Your task to perform on an android device: Open Google Maps and go to "Timeline" Image 0: 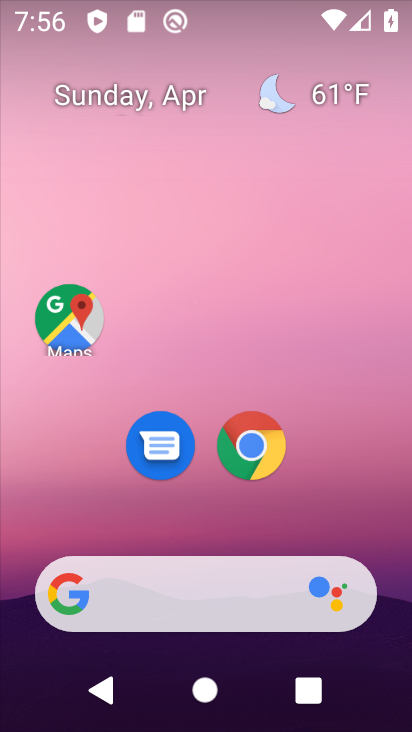
Step 0: drag from (199, 517) to (198, 311)
Your task to perform on an android device: Open Google Maps and go to "Timeline" Image 1: 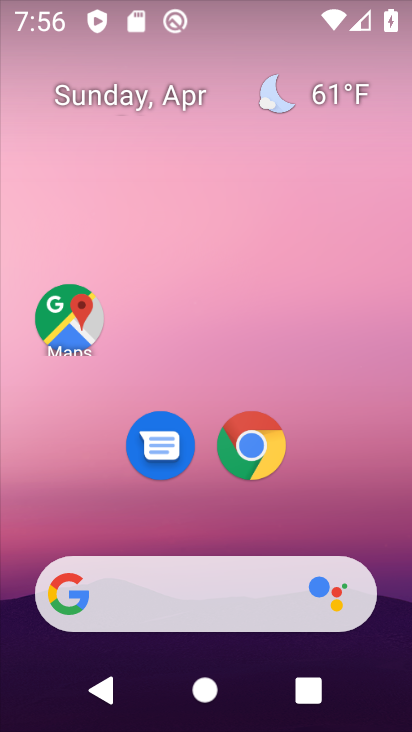
Step 1: click (74, 308)
Your task to perform on an android device: Open Google Maps and go to "Timeline" Image 2: 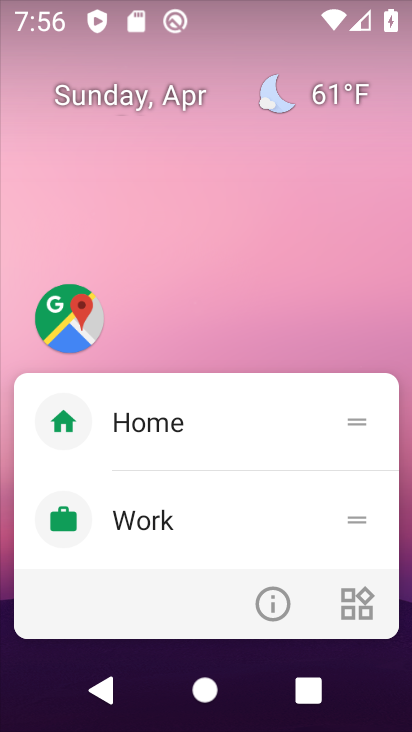
Step 2: click (57, 308)
Your task to perform on an android device: Open Google Maps and go to "Timeline" Image 3: 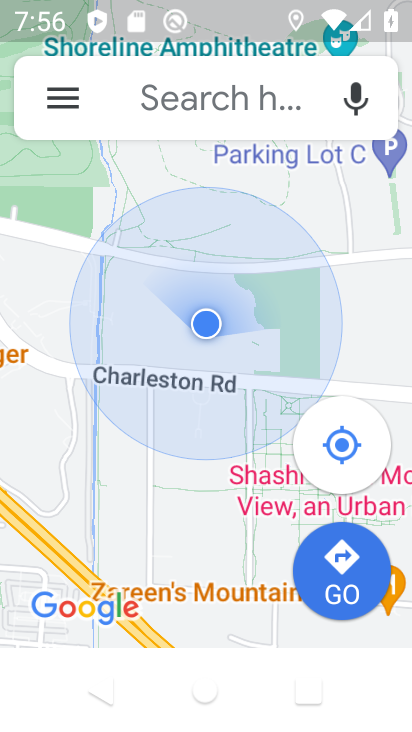
Step 3: click (53, 92)
Your task to perform on an android device: Open Google Maps and go to "Timeline" Image 4: 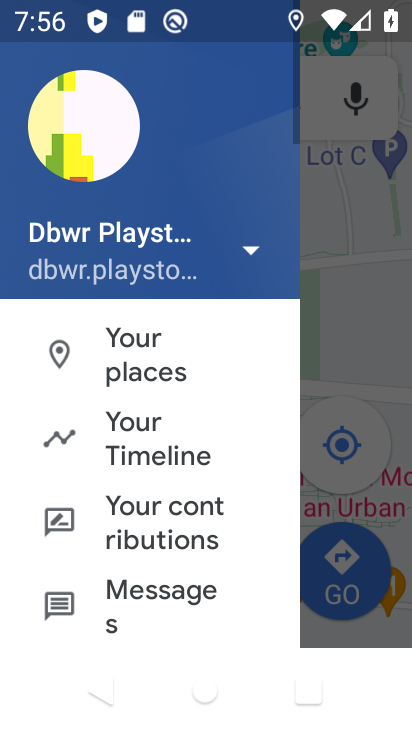
Step 4: click (165, 431)
Your task to perform on an android device: Open Google Maps and go to "Timeline" Image 5: 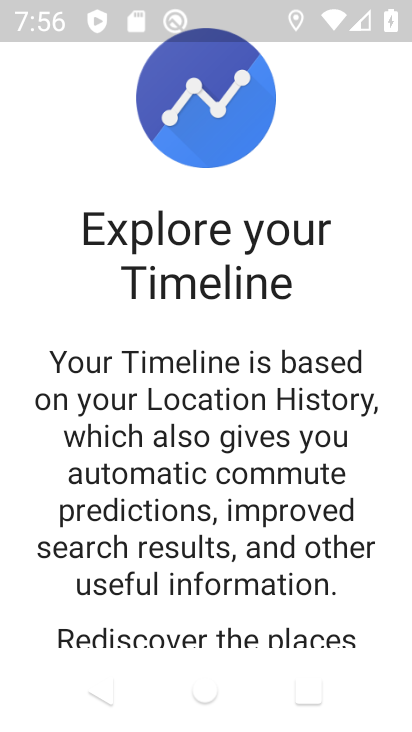
Step 5: drag from (276, 565) to (271, 242)
Your task to perform on an android device: Open Google Maps and go to "Timeline" Image 6: 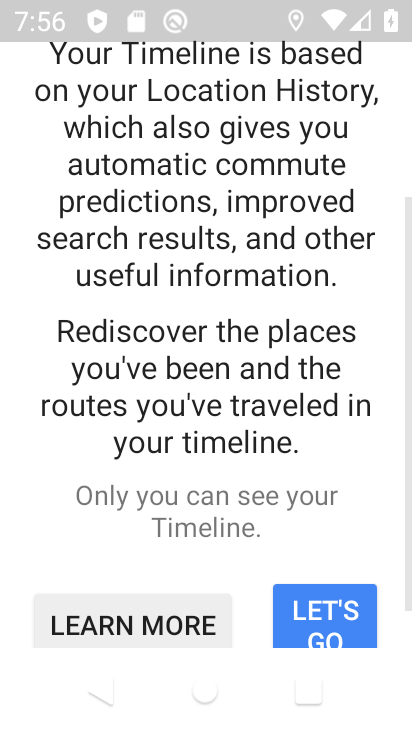
Step 6: click (290, 614)
Your task to perform on an android device: Open Google Maps and go to "Timeline" Image 7: 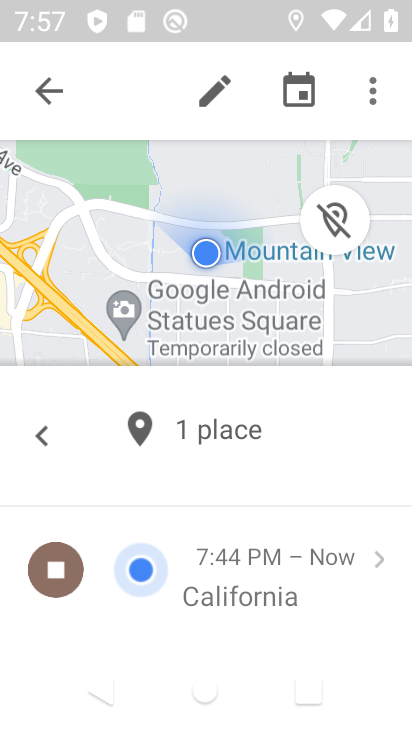
Step 7: task complete